Your task to perform on an android device: turn notification dots off Image 0: 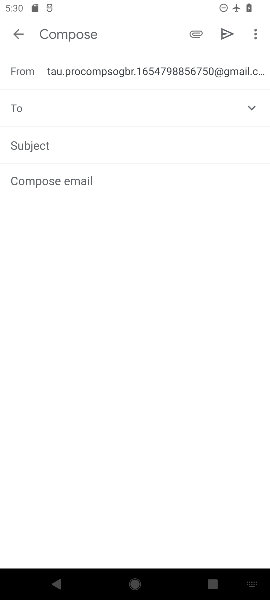
Step 0: press home button
Your task to perform on an android device: turn notification dots off Image 1: 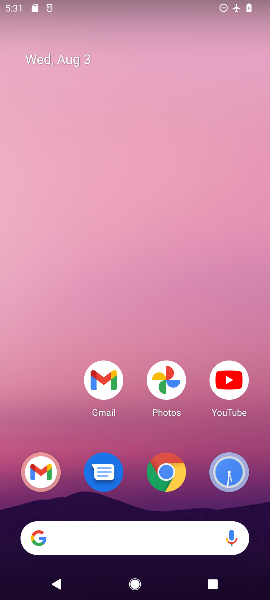
Step 1: drag from (192, 496) to (70, 40)
Your task to perform on an android device: turn notification dots off Image 2: 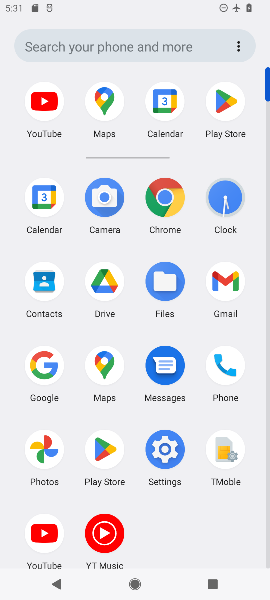
Step 2: click (166, 462)
Your task to perform on an android device: turn notification dots off Image 3: 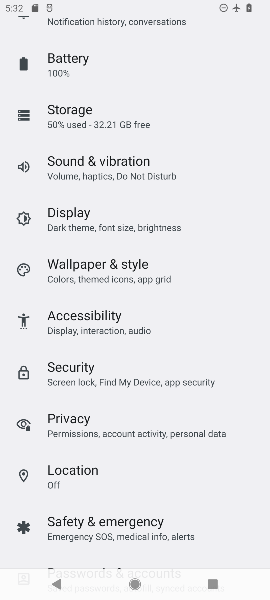
Step 3: drag from (71, 147) to (130, 561)
Your task to perform on an android device: turn notification dots off Image 4: 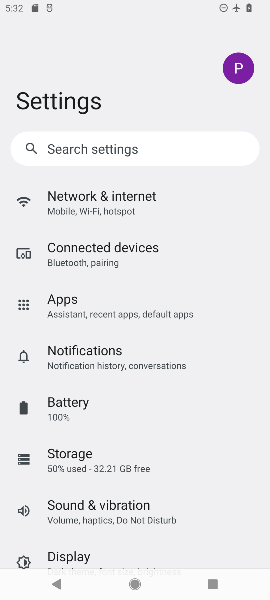
Step 4: click (129, 354)
Your task to perform on an android device: turn notification dots off Image 5: 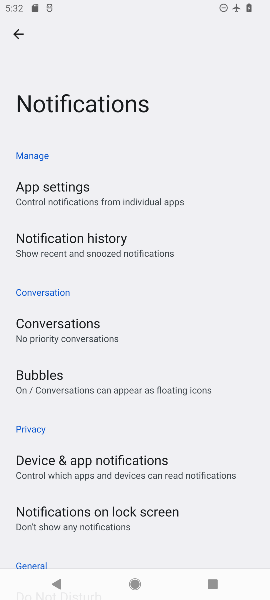
Step 5: drag from (109, 514) to (61, 75)
Your task to perform on an android device: turn notification dots off Image 6: 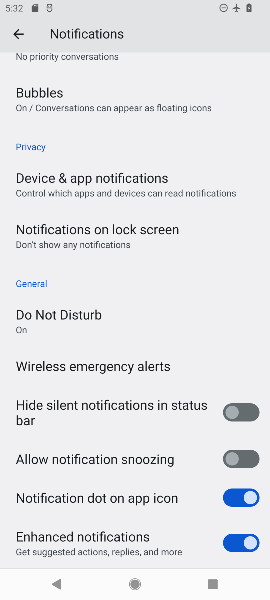
Step 6: click (185, 497)
Your task to perform on an android device: turn notification dots off Image 7: 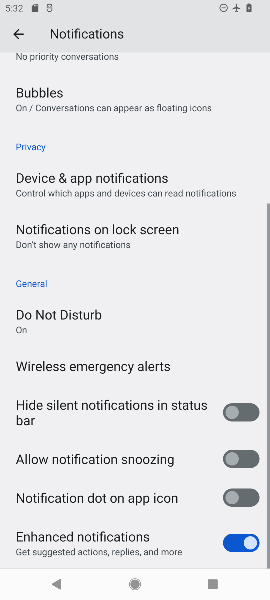
Step 7: task complete